Your task to perform on an android device: open app "Facebook Messenger" (install if not already installed) and go to login screen Image 0: 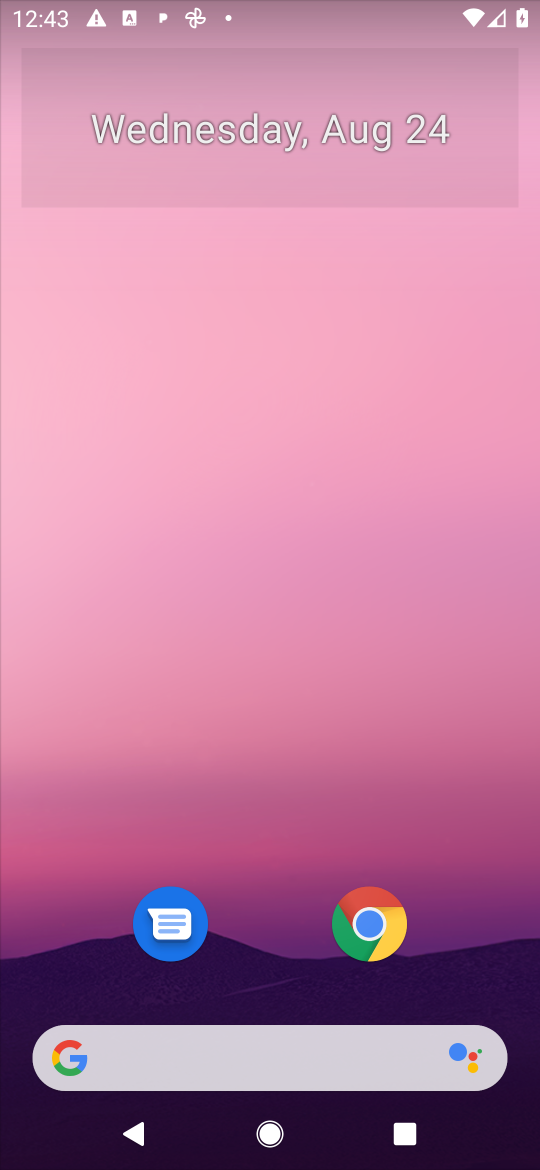
Step 0: press home button
Your task to perform on an android device: open app "Facebook Messenger" (install if not already installed) and go to login screen Image 1: 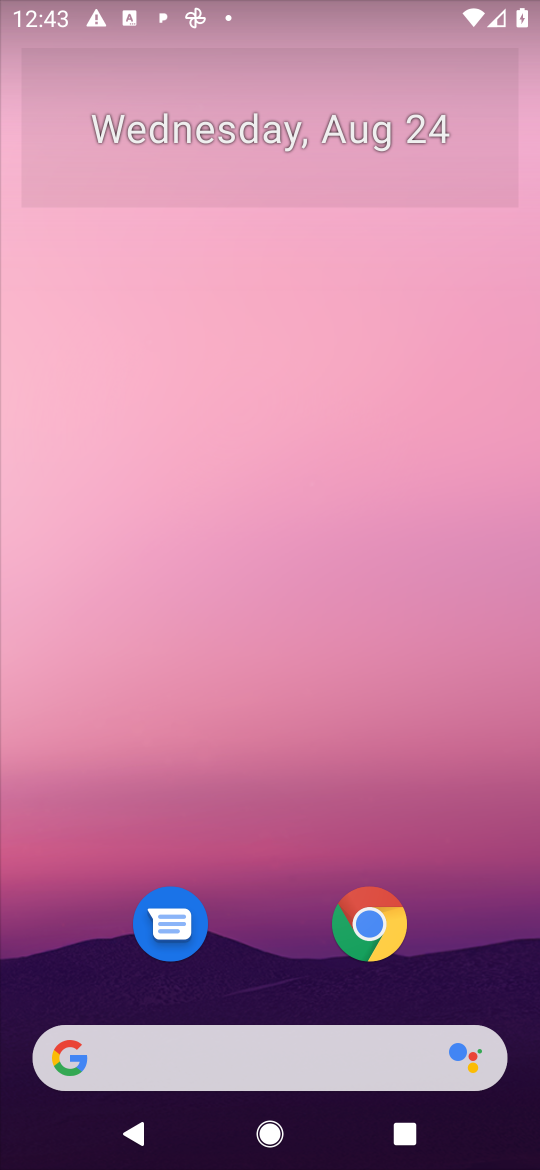
Step 1: drag from (493, 949) to (500, 154)
Your task to perform on an android device: open app "Facebook Messenger" (install if not already installed) and go to login screen Image 2: 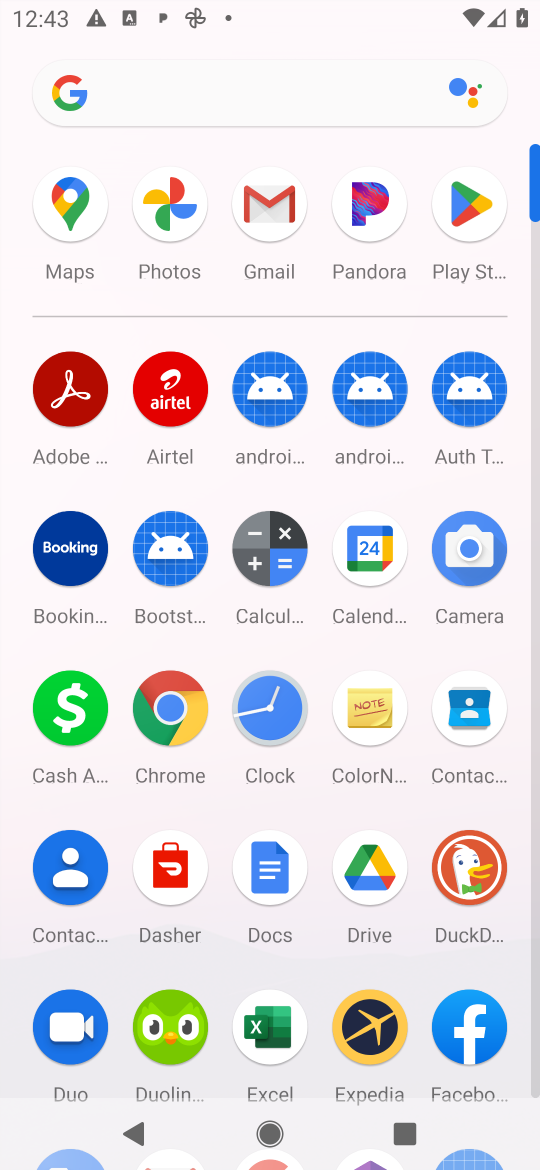
Step 2: click (471, 211)
Your task to perform on an android device: open app "Facebook Messenger" (install if not already installed) and go to login screen Image 3: 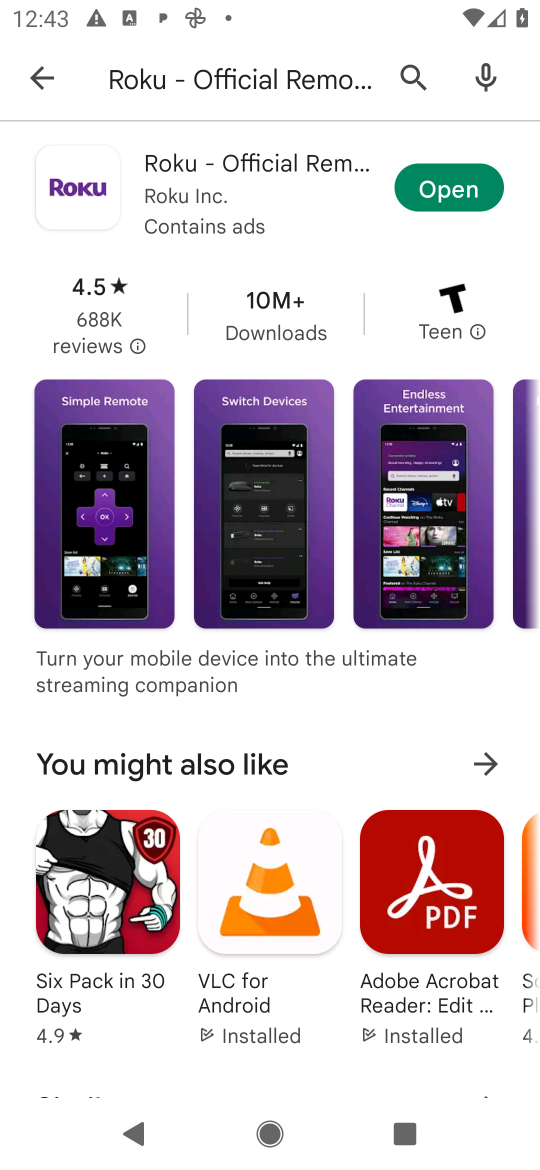
Step 3: press back button
Your task to perform on an android device: open app "Facebook Messenger" (install if not already installed) and go to login screen Image 4: 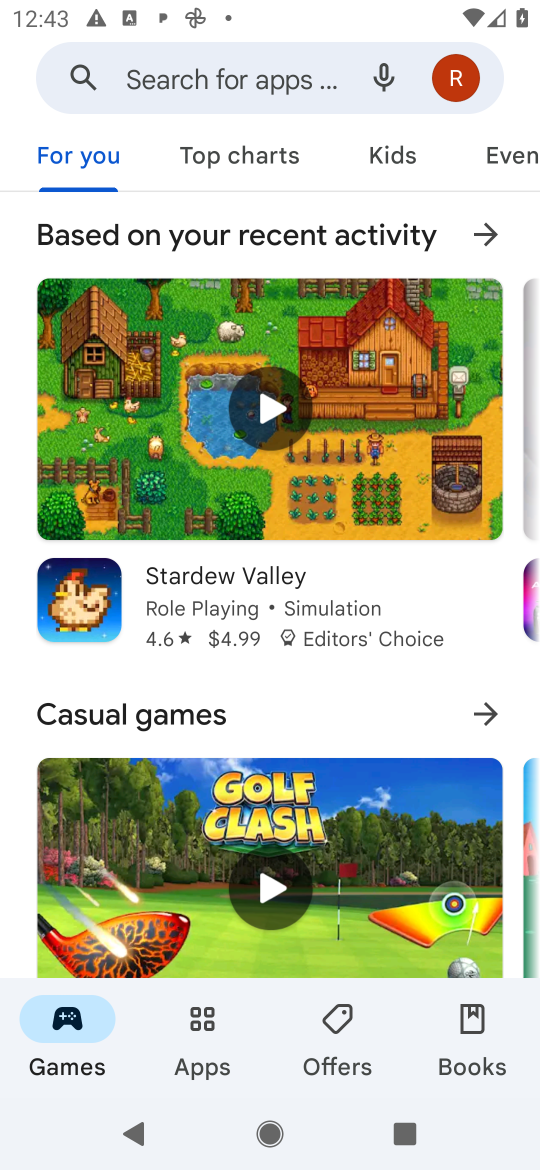
Step 4: click (244, 67)
Your task to perform on an android device: open app "Facebook Messenger" (install if not already installed) and go to login screen Image 5: 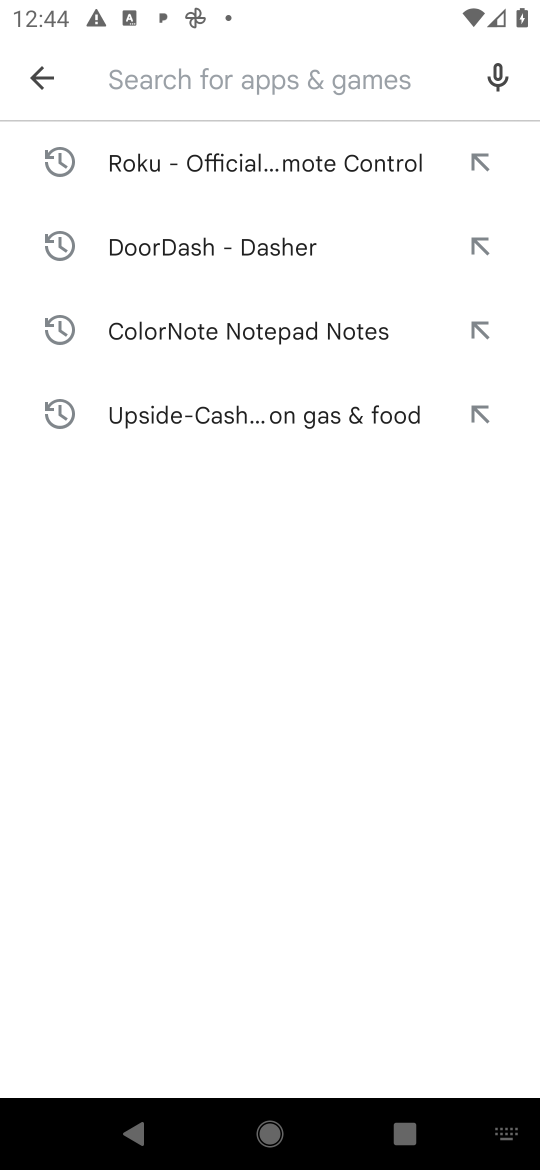
Step 5: type "Facebook Messenger"
Your task to perform on an android device: open app "Facebook Messenger" (install if not already installed) and go to login screen Image 6: 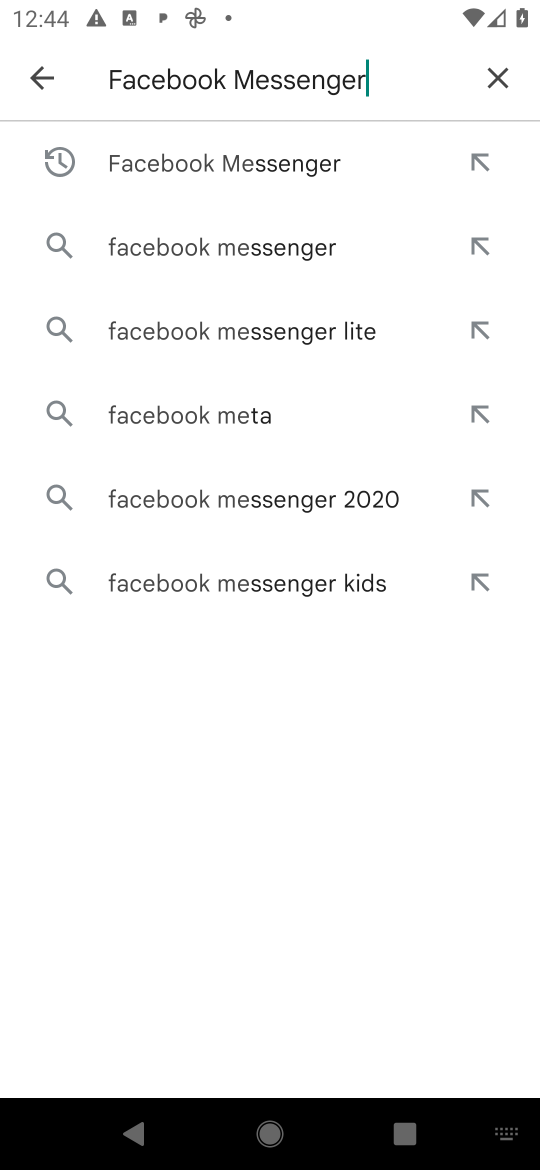
Step 6: press enter
Your task to perform on an android device: open app "Facebook Messenger" (install if not already installed) and go to login screen Image 7: 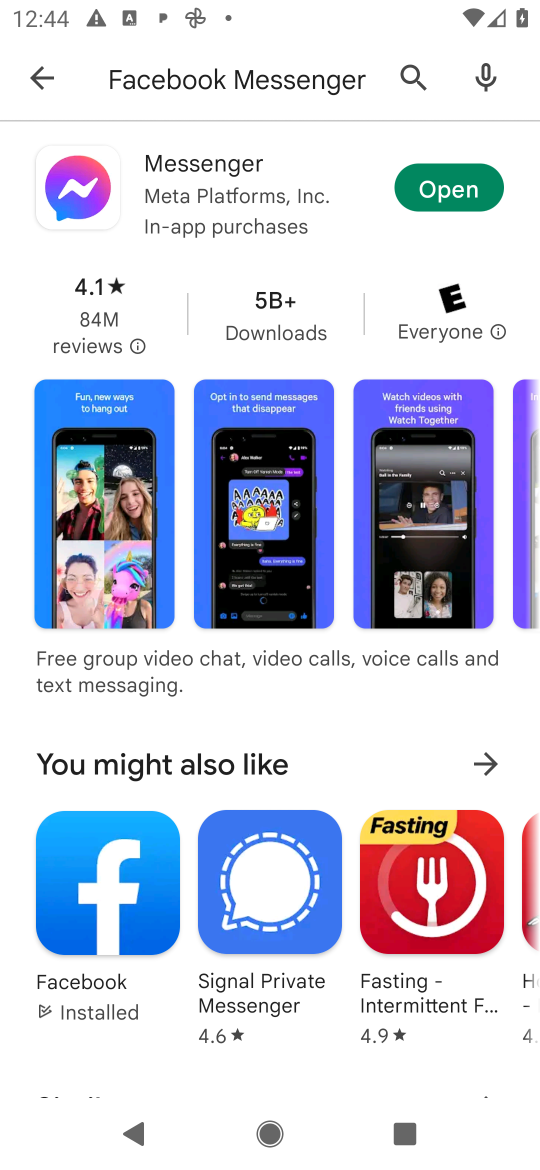
Step 7: click (439, 198)
Your task to perform on an android device: open app "Facebook Messenger" (install if not already installed) and go to login screen Image 8: 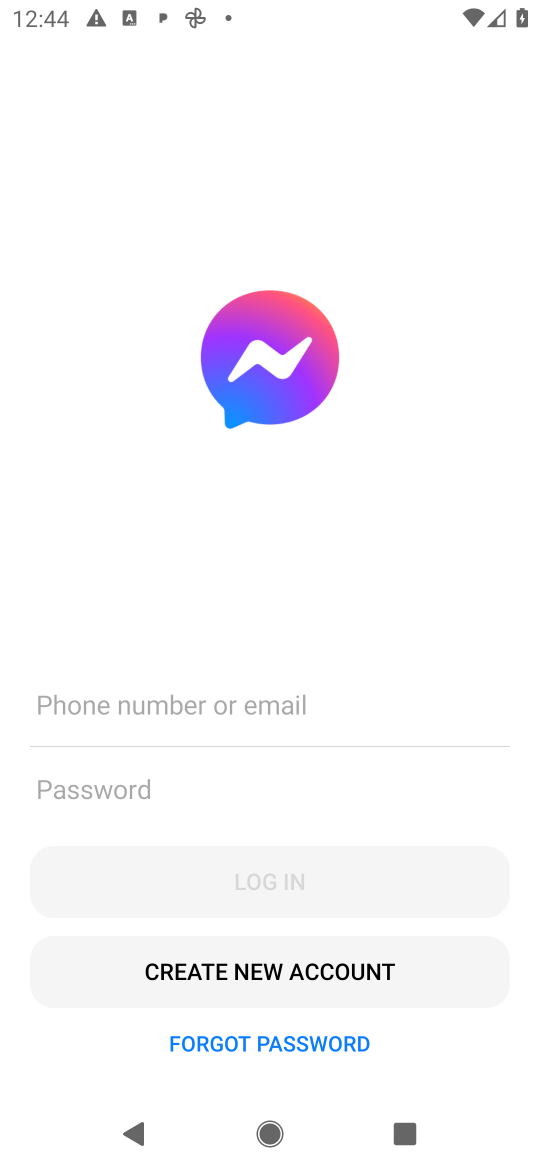
Step 8: task complete